Your task to perform on an android device: turn on priority inbox in the gmail app Image 0: 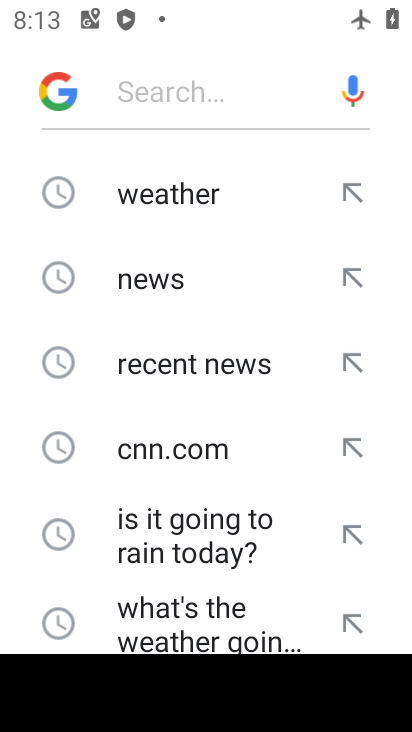
Step 0: press home button
Your task to perform on an android device: turn on priority inbox in the gmail app Image 1: 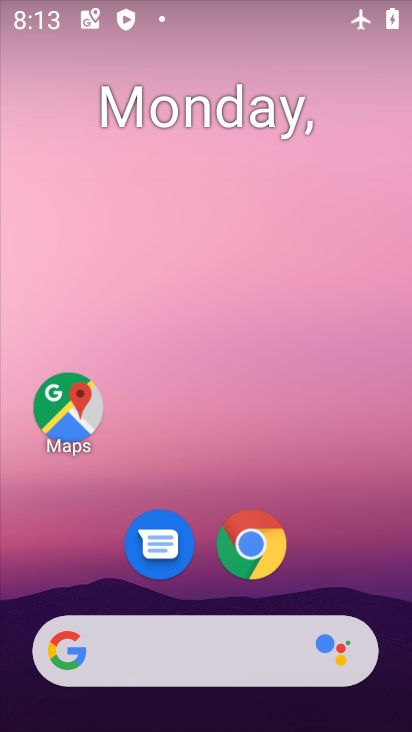
Step 1: drag from (248, 430) to (139, 57)
Your task to perform on an android device: turn on priority inbox in the gmail app Image 2: 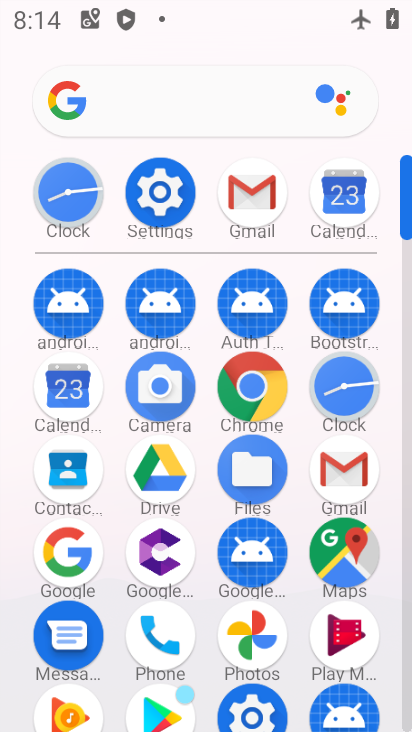
Step 2: click (251, 196)
Your task to perform on an android device: turn on priority inbox in the gmail app Image 3: 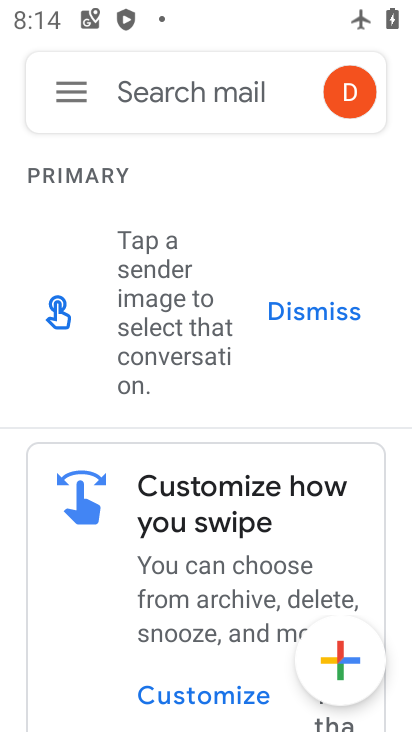
Step 3: click (72, 87)
Your task to perform on an android device: turn on priority inbox in the gmail app Image 4: 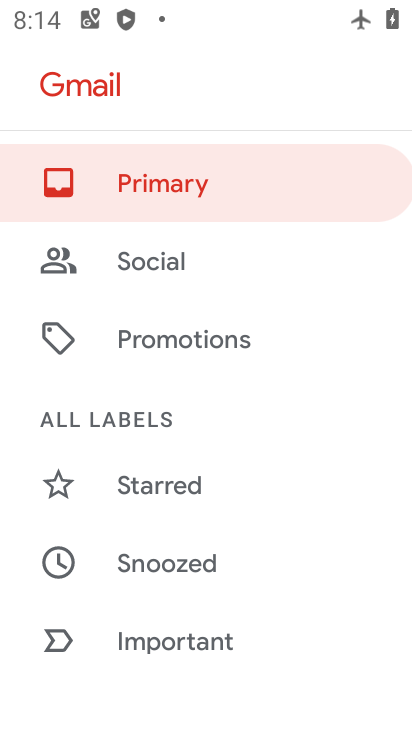
Step 4: drag from (245, 518) to (180, 174)
Your task to perform on an android device: turn on priority inbox in the gmail app Image 5: 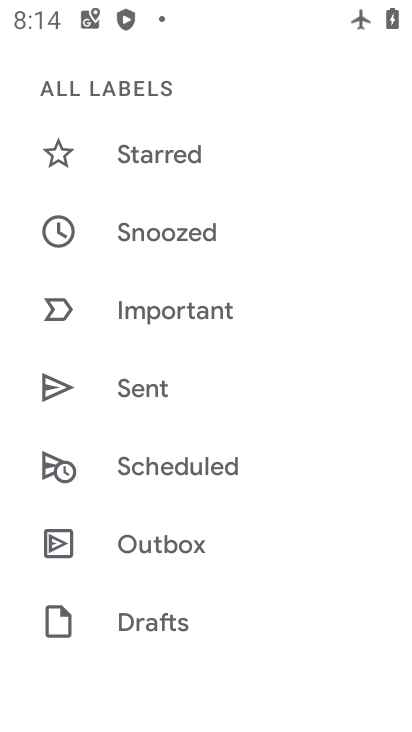
Step 5: drag from (253, 496) to (249, 251)
Your task to perform on an android device: turn on priority inbox in the gmail app Image 6: 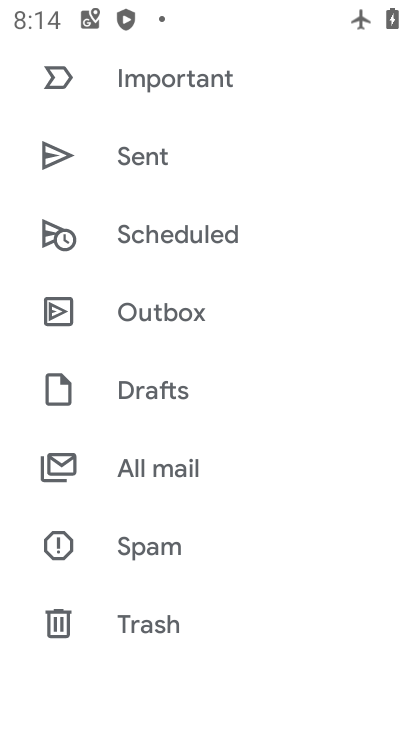
Step 6: drag from (264, 569) to (219, 179)
Your task to perform on an android device: turn on priority inbox in the gmail app Image 7: 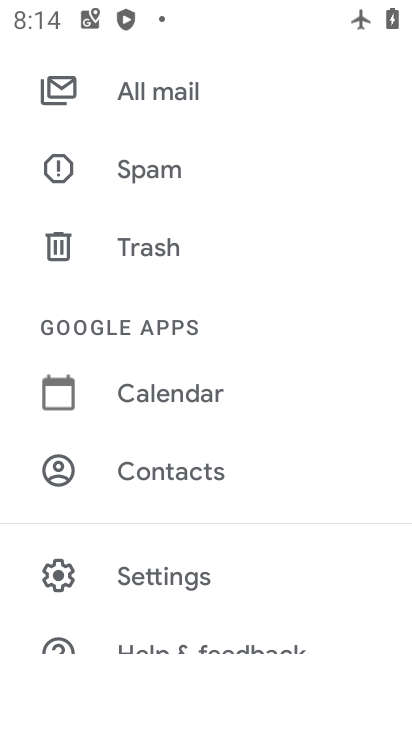
Step 7: drag from (279, 459) to (231, 142)
Your task to perform on an android device: turn on priority inbox in the gmail app Image 8: 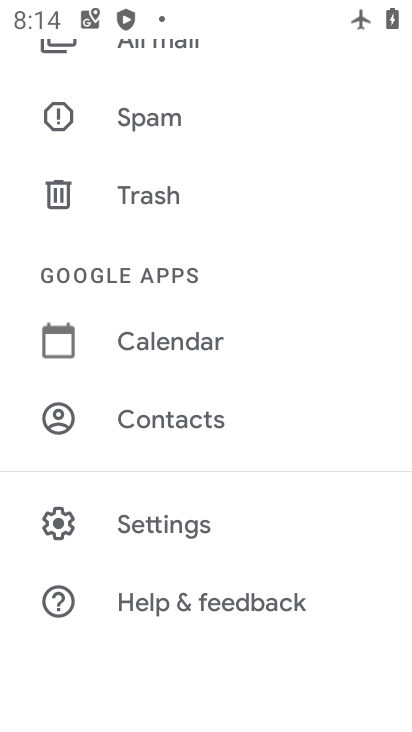
Step 8: click (158, 520)
Your task to perform on an android device: turn on priority inbox in the gmail app Image 9: 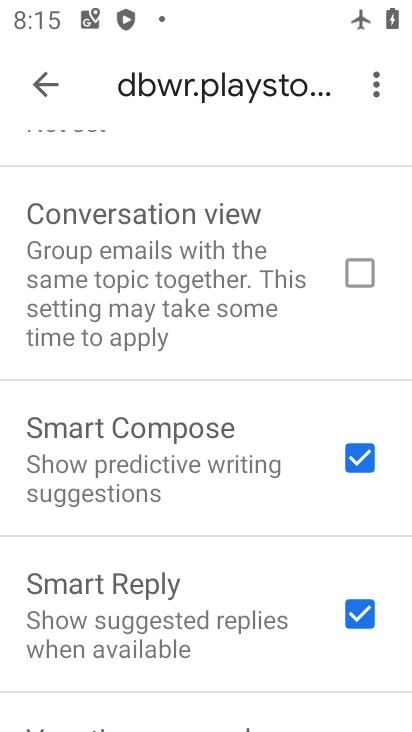
Step 9: drag from (204, 270) to (345, 724)
Your task to perform on an android device: turn on priority inbox in the gmail app Image 10: 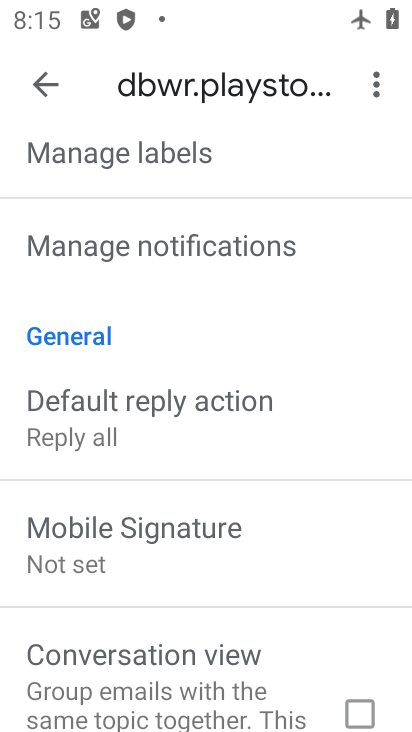
Step 10: drag from (214, 306) to (246, 673)
Your task to perform on an android device: turn on priority inbox in the gmail app Image 11: 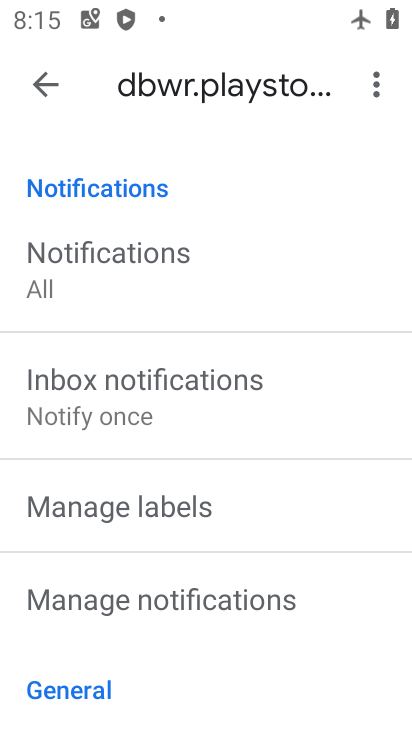
Step 11: drag from (222, 219) to (155, 708)
Your task to perform on an android device: turn on priority inbox in the gmail app Image 12: 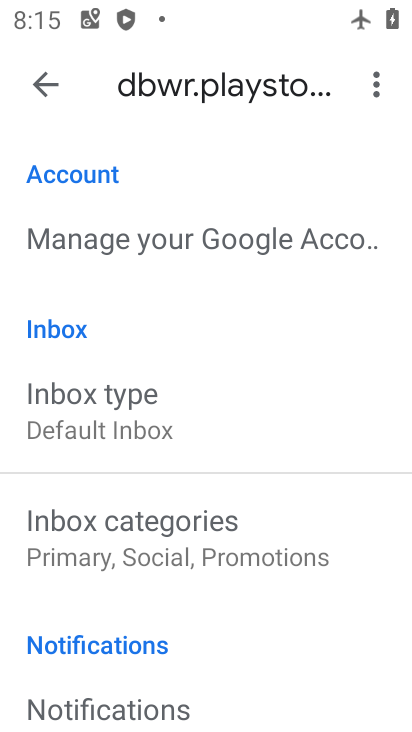
Step 12: click (99, 415)
Your task to perform on an android device: turn on priority inbox in the gmail app Image 13: 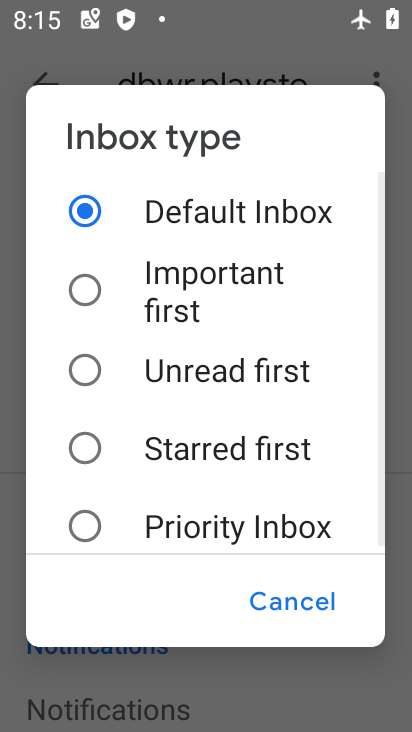
Step 13: click (91, 521)
Your task to perform on an android device: turn on priority inbox in the gmail app Image 14: 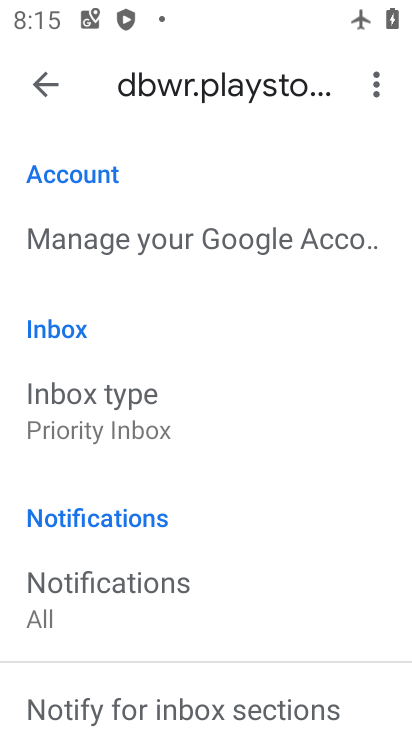
Step 14: task complete